Your task to perform on an android device: open device folders in google photos Image 0: 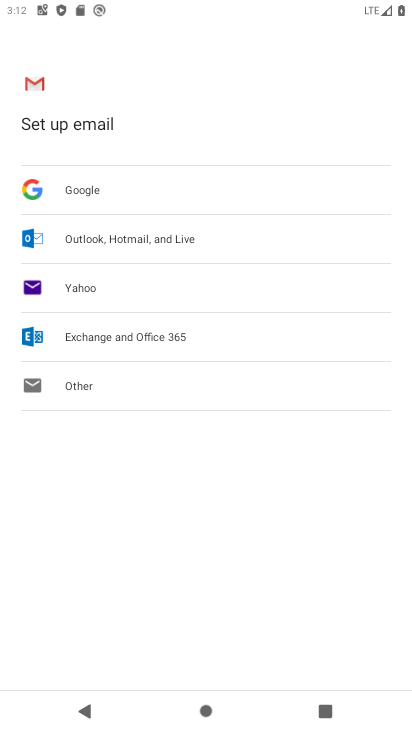
Step 0: press home button
Your task to perform on an android device: open device folders in google photos Image 1: 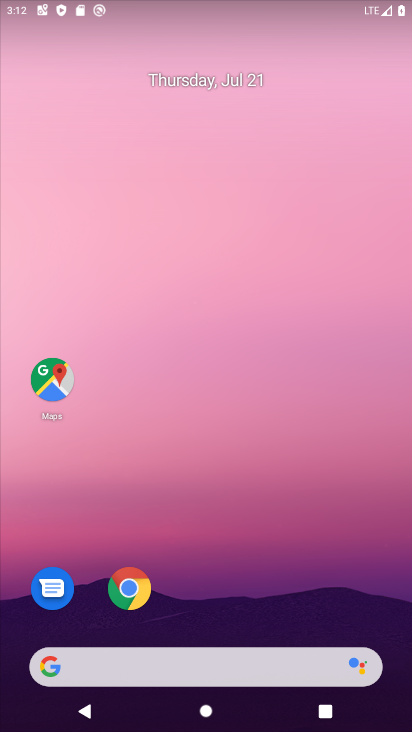
Step 1: drag from (226, 636) to (277, 9)
Your task to perform on an android device: open device folders in google photos Image 2: 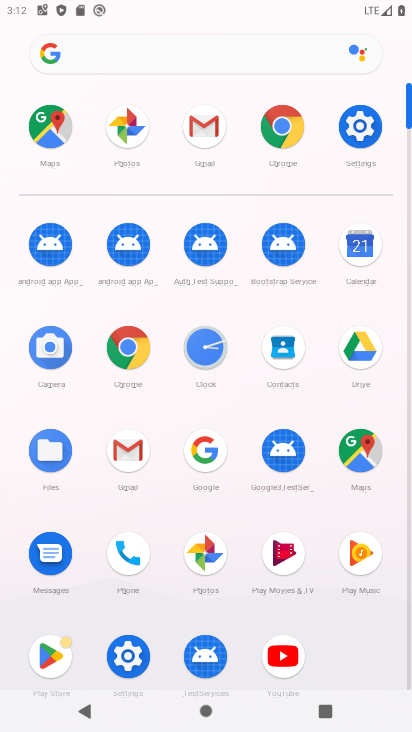
Step 2: click (205, 564)
Your task to perform on an android device: open device folders in google photos Image 3: 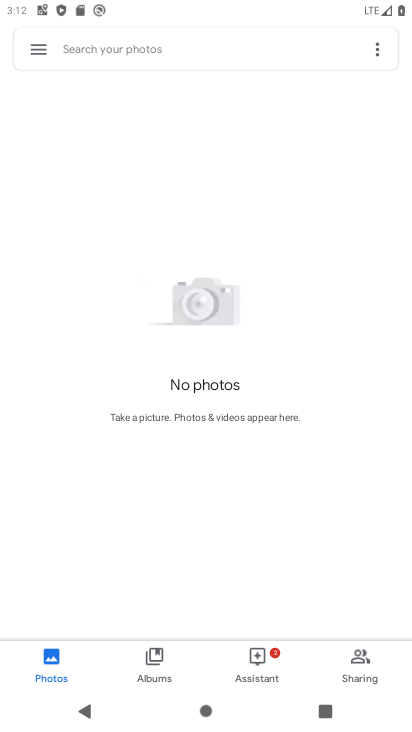
Step 3: click (31, 43)
Your task to perform on an android device: open device folders in google photos Image 4: 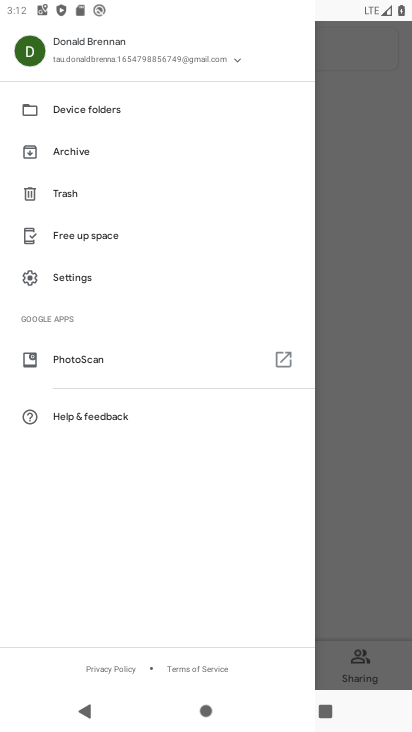
Step 4: click (147, 105)
Your task to perform on an android device: open device folders in google photos Image 5: 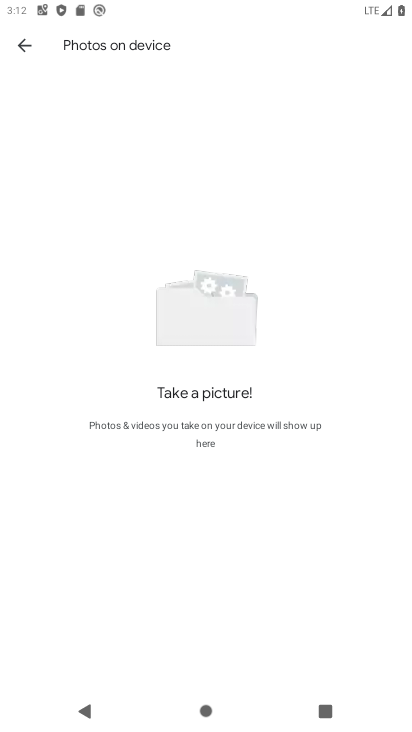
Step 5: task complete